Your task to perform on an android device: Open CNN.com Image 0: 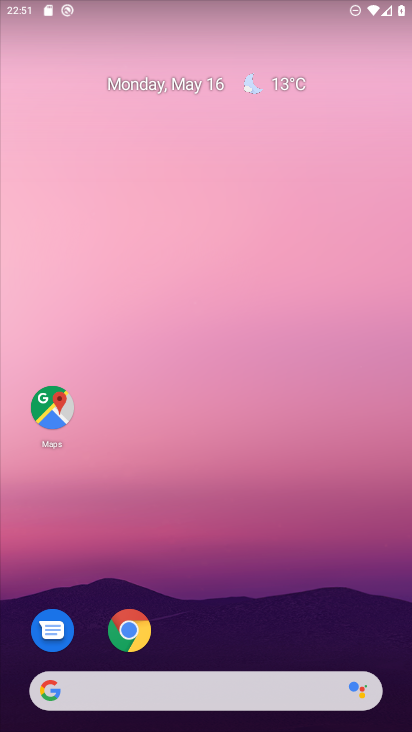
Step 0: click (111, 616)
Your task to perform on an android device: Open CNN.com Image 1: 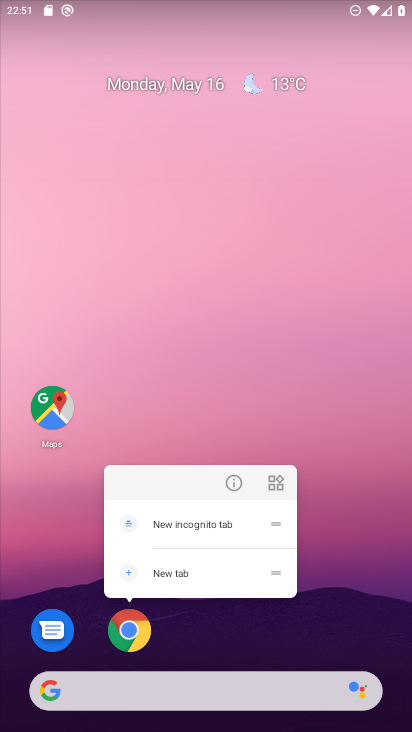
Step 1: click (113, 640)
Your task to perform on an android device: Open CNN.com Image 2: 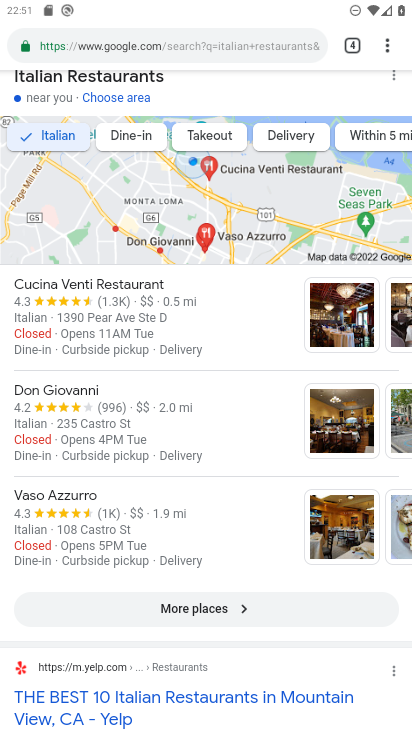
Step 2: click (178, 43)
Your task to perform on an android device: Open CNN.com Image 3: 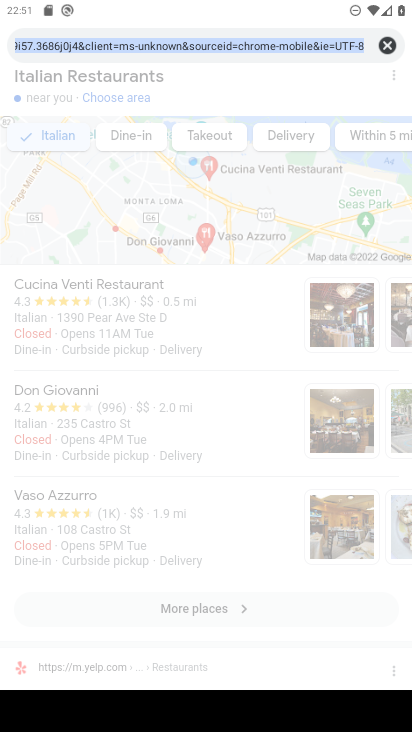
Step 3: type "CNN.com"
Your task to perform on an android device: Open CNN.com Image 4: 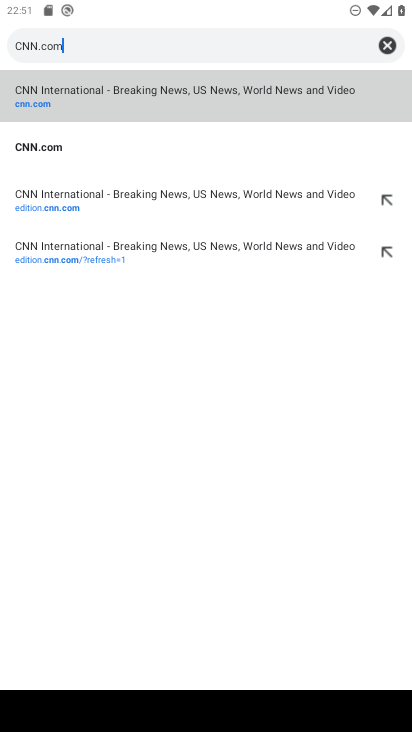
Step 4: click (199, 95)
Your task to perform on an android device: Open CNN.com Image 5: 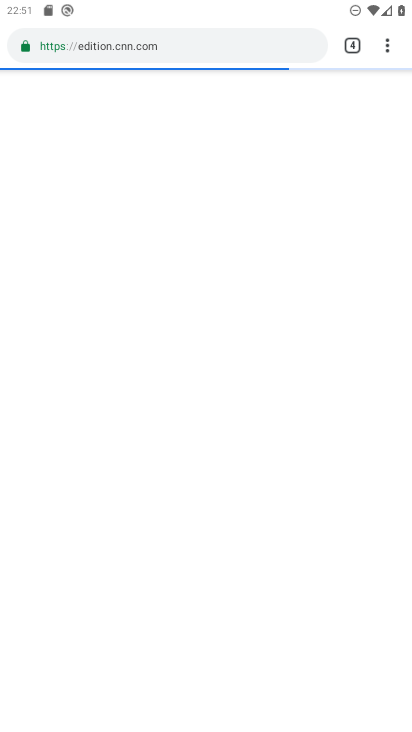
Step 5: task complete